Your task to perform on an android device: Do I have any events today? Image 0: 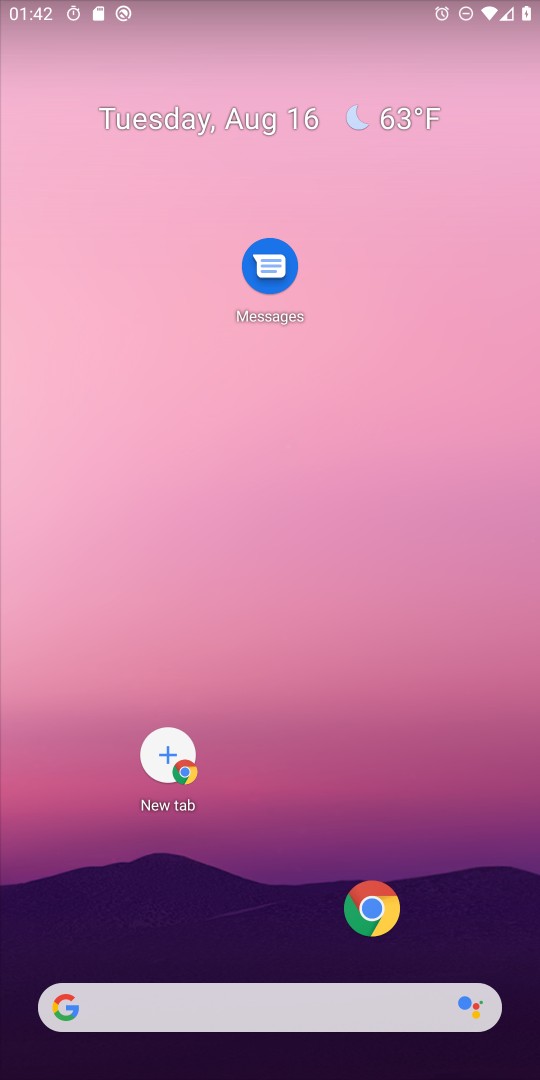
Step 0: click (294, 114)
Your task to perform on an android device: Do I have any events today? Image 1: 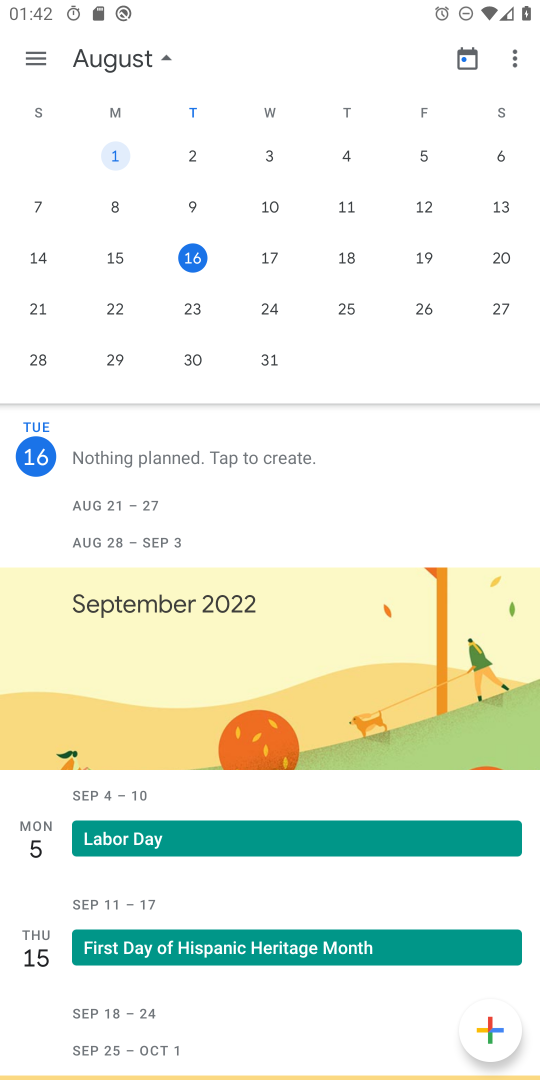
Step 1: task complete